Your task to perform on an android device: Go to Yahoo.com Image 0: 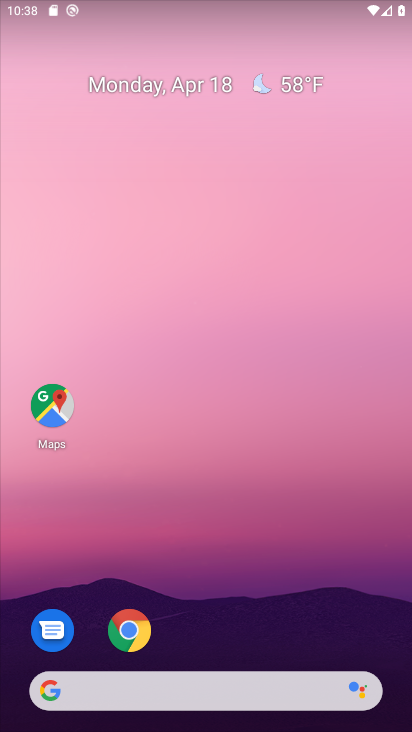
Step 0: click (147, 634)
Your task to perform on an android device: Go to Yahoo.com Image 1: 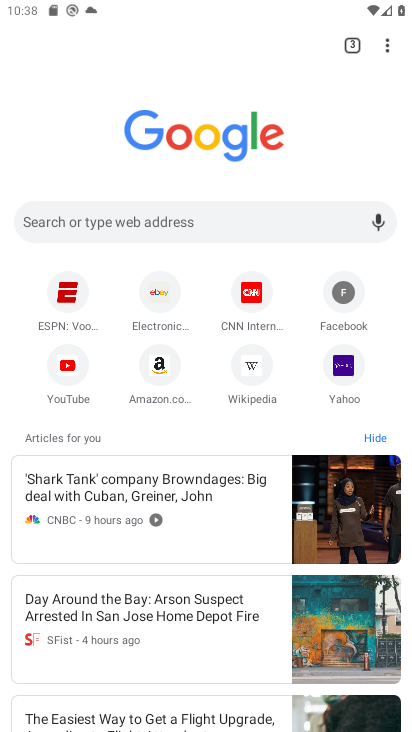
Step 1: click (343, 376)
Your task to perform on an android device: Go to Yahoo.com Image 2: 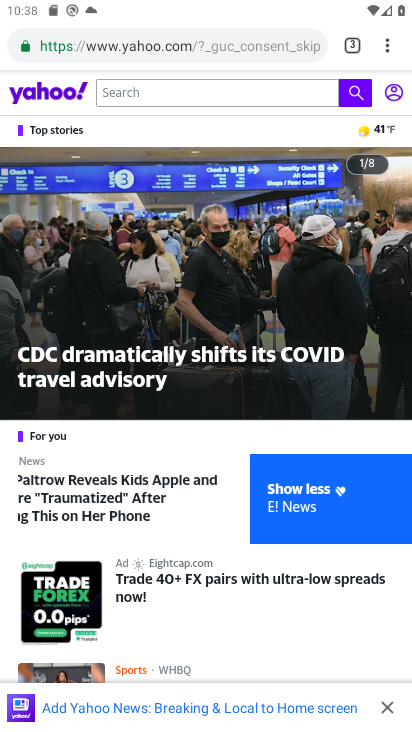
Step 2: task complete